Your task to perform on an android device: turn off sleep mode Image 0: 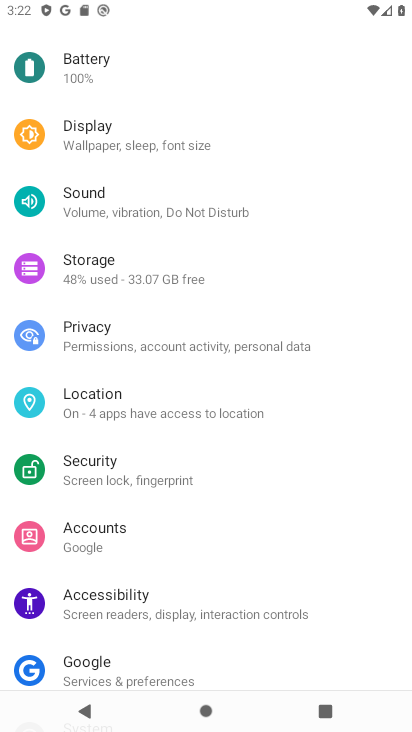
Step 0: drag from (185, 199) to (184, 393)
Your task to perform on an android device: turn off sleep mode Image 1: 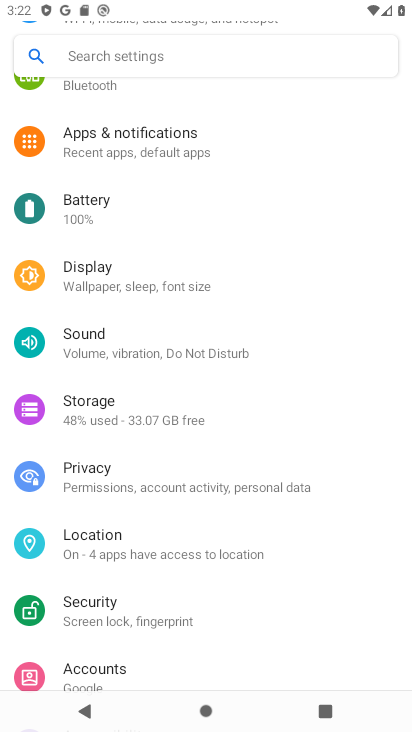
Step 1: click (185, 70)
Your task to perform on an android device: turn off sleep mode Image 2: 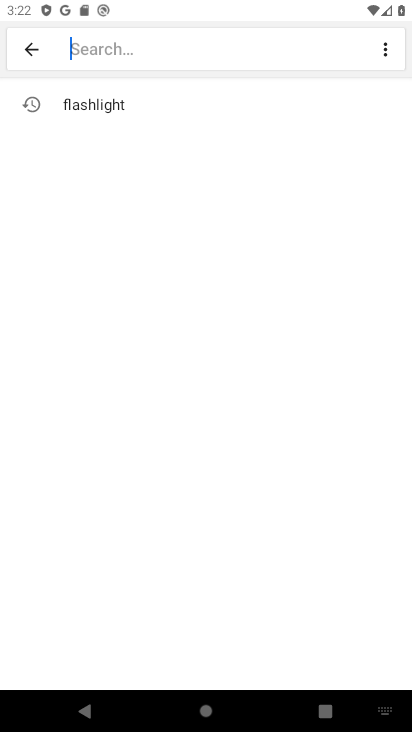
Step 2: type "sleep mode"
Your task to perform on an android device: turn off sleep mode Image 3: 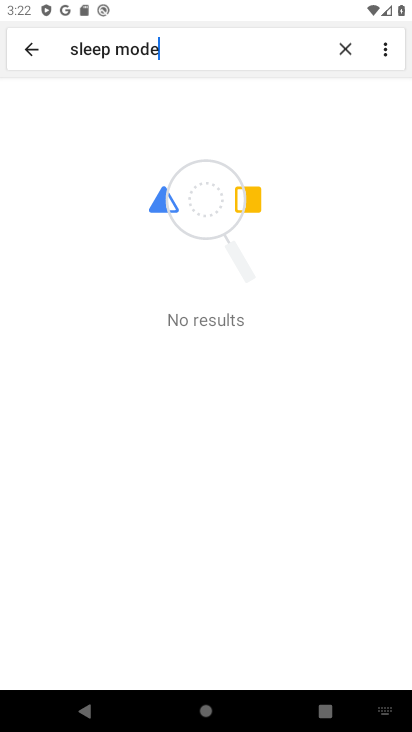
Step 3: task complete